Your task to perform on an android device: Open notification settings Image 0: 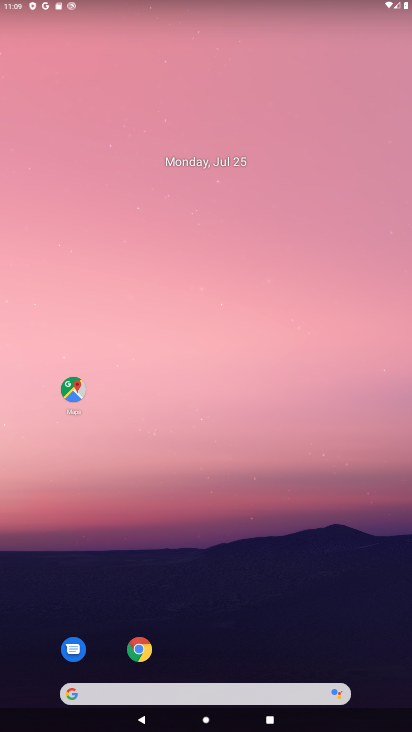
Step 0: drag from (228, 668) to (228, 254)
Your task to perform on an android device: Open notification settings Image 1: 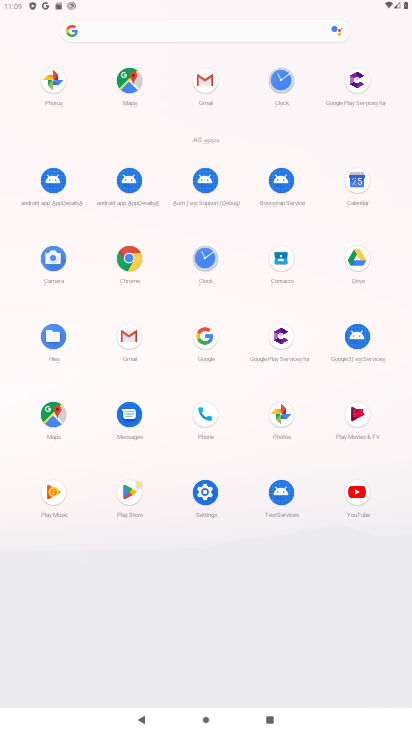
Step 1: click (196, 493)
Your task to perform on an android device: Open notification settings Image 2: 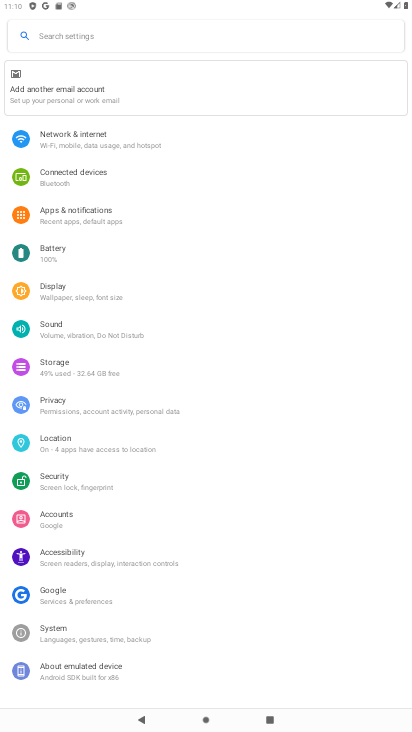
Step 2: click (75, 217)
Your task to perform on an android device: Open notification settings Image 3: 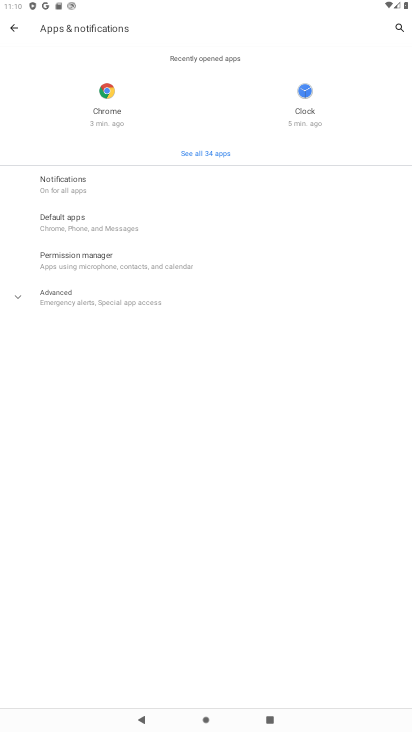
Step 3: click (94, 293)
Your task to perform on an android device: Open notification settings Image 4: 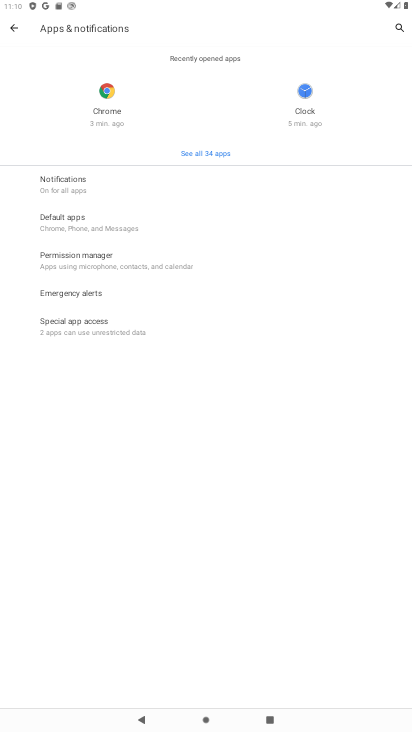
Step 4: task complete